Your task to perform on an android device: check android version Image 0: 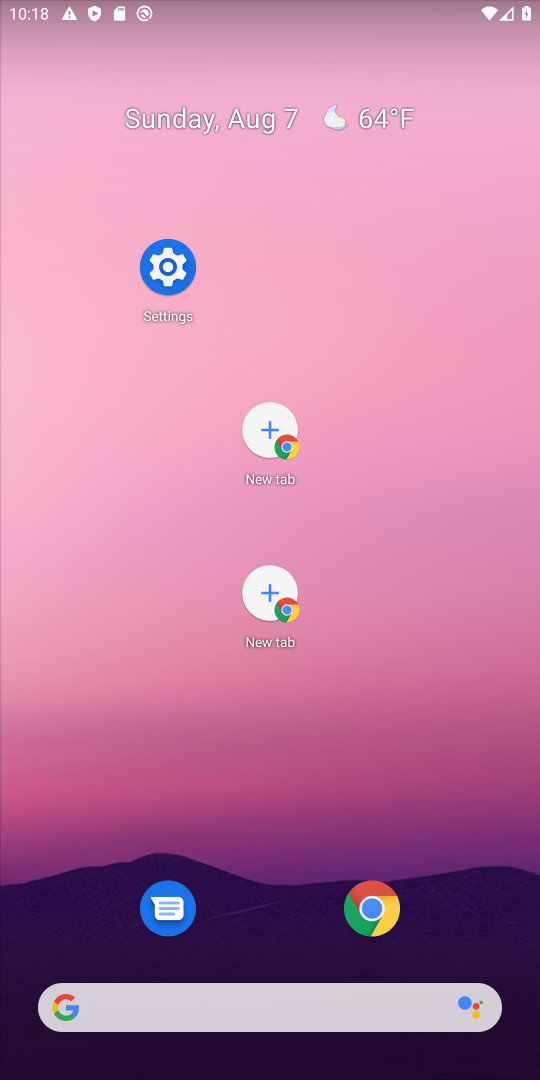
Step 0: drag from (340, 1001) to (393, 479)
Your task to perform on an android device: check android version Image 1: 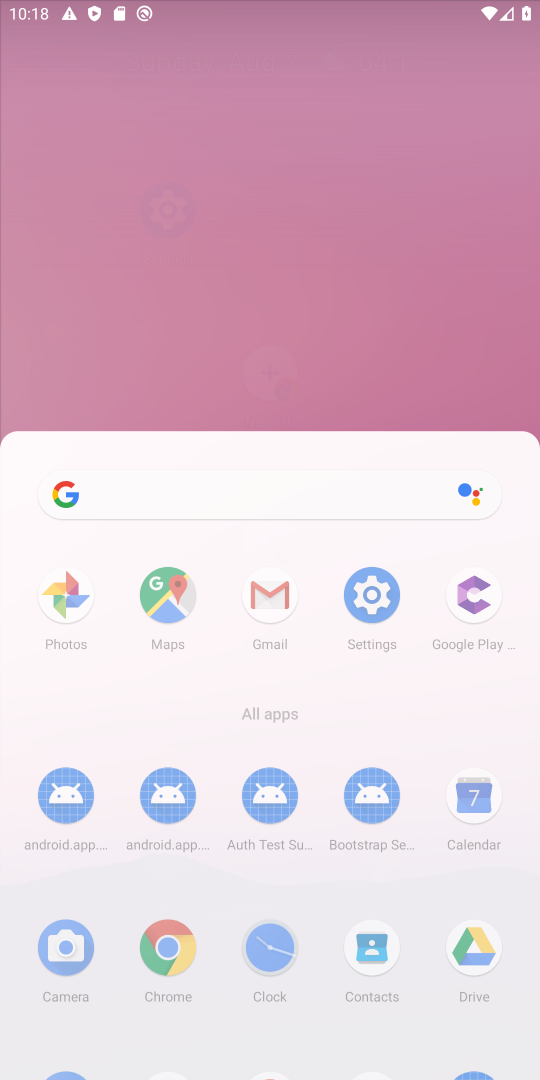
Step 1: click (311, 429)
Your task to perform on an android device: check android version Image 2: 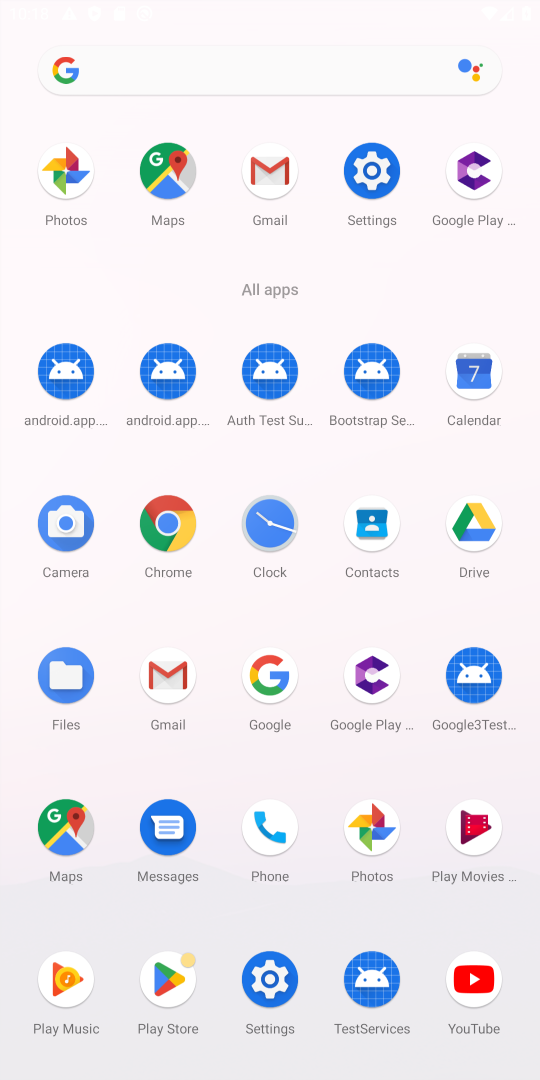
Step 2: drag from (320, 783) to (314, 48)
Your task to perform on an android device: check android version Image 3: 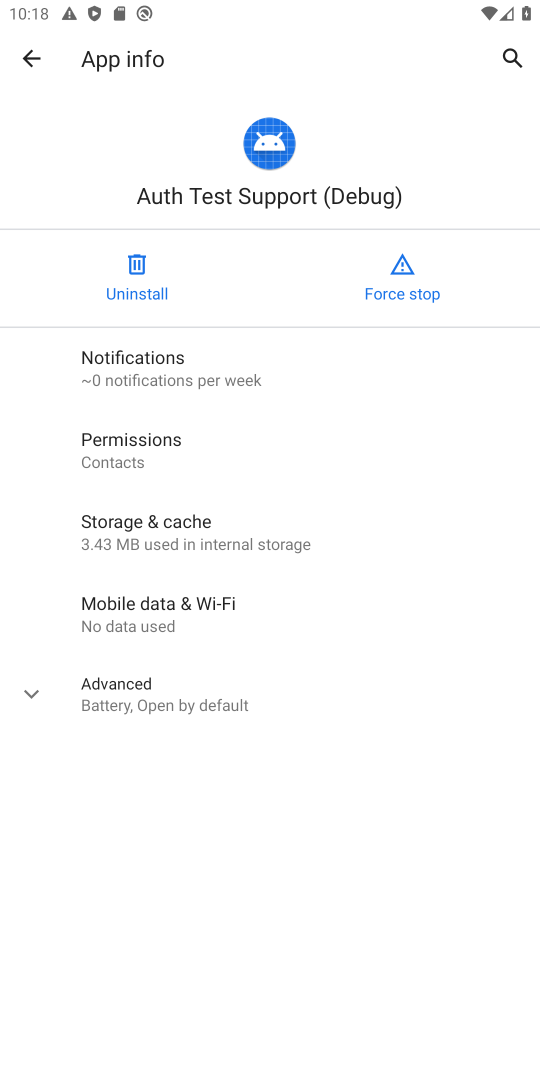
Step 3: click (31, 55)
Your task to perform on an android device: check android version Image 4: 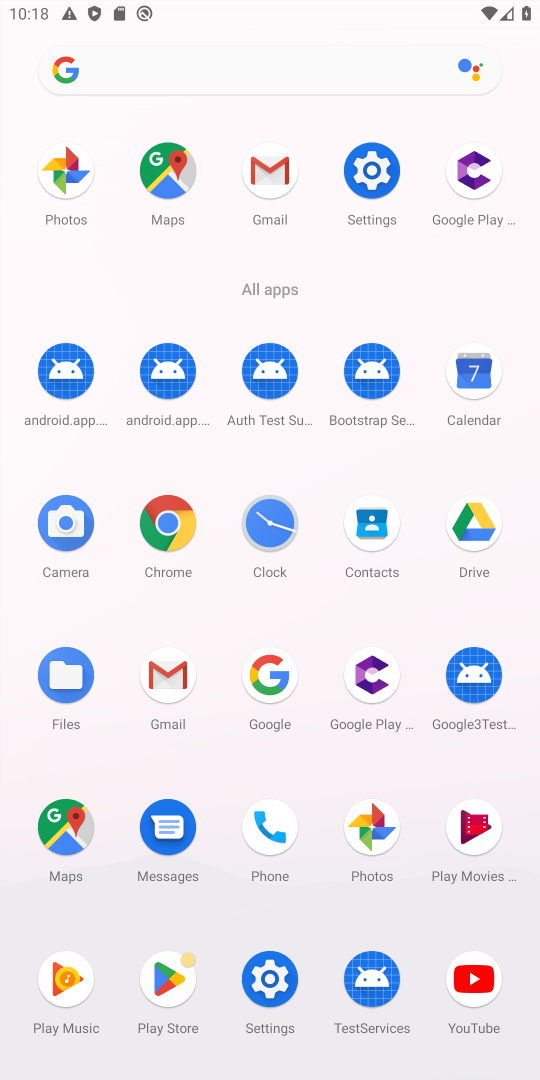
Step 4: click (270, 986)
Your task to perform on an android device: check android version Image 5: 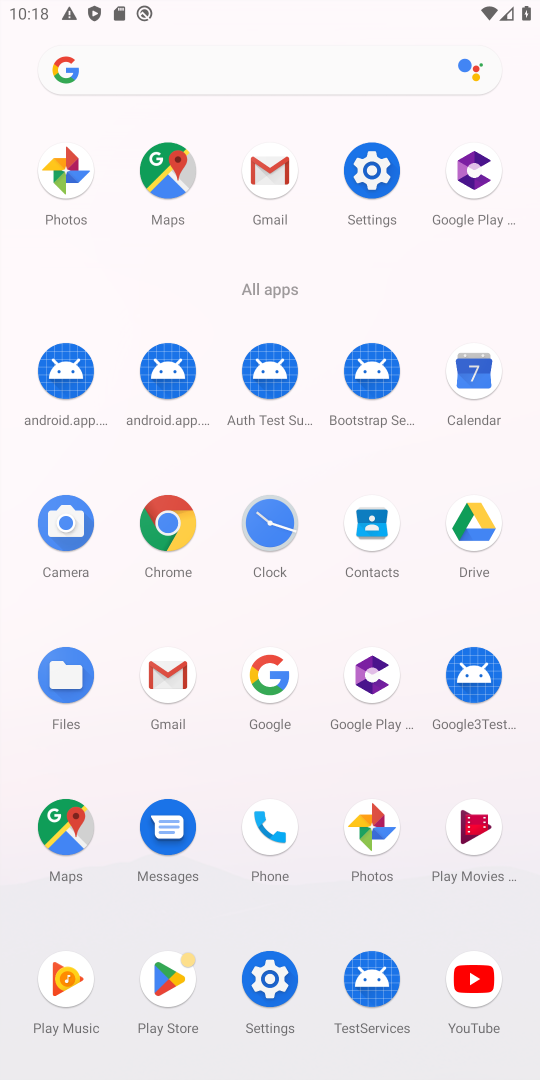
Step 5: click (269, 986)
Your task to perform on an android device: check android version Image 6: 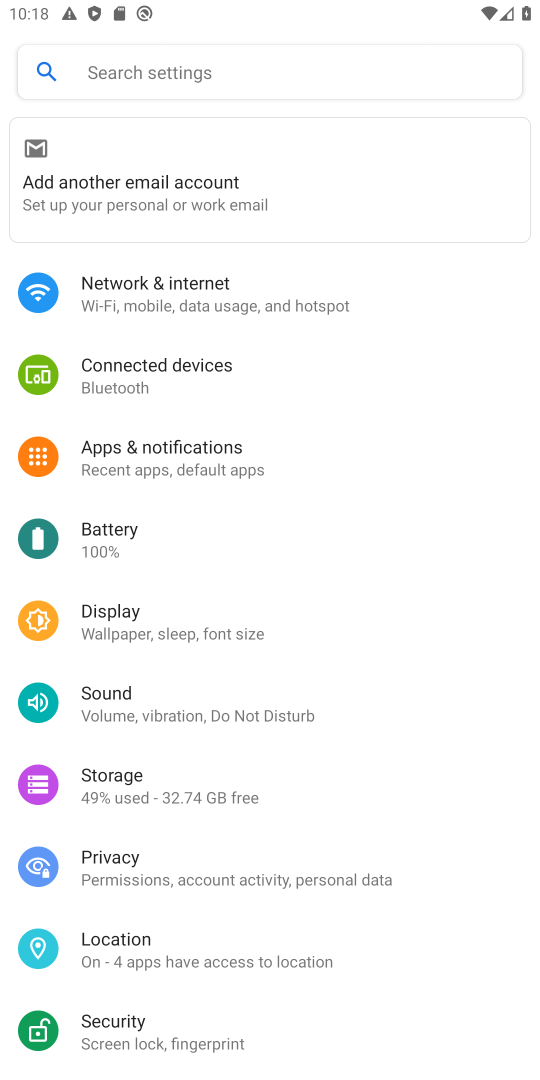
Step 6: task complete